Your task to perform on an android device: Go to accessibility settings Image 0: 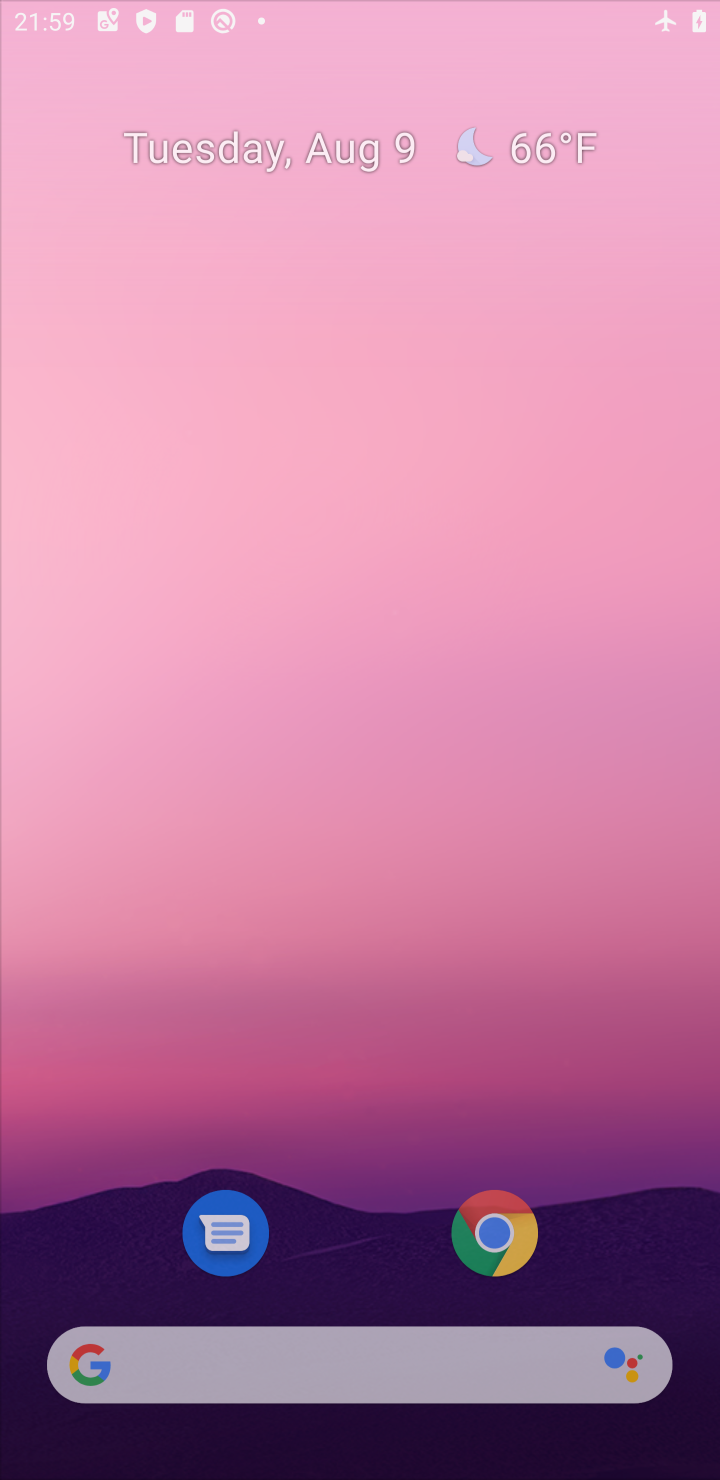
Step 0: press home button
Your task to perform on an android device: Go to accessibility settings Image 1: 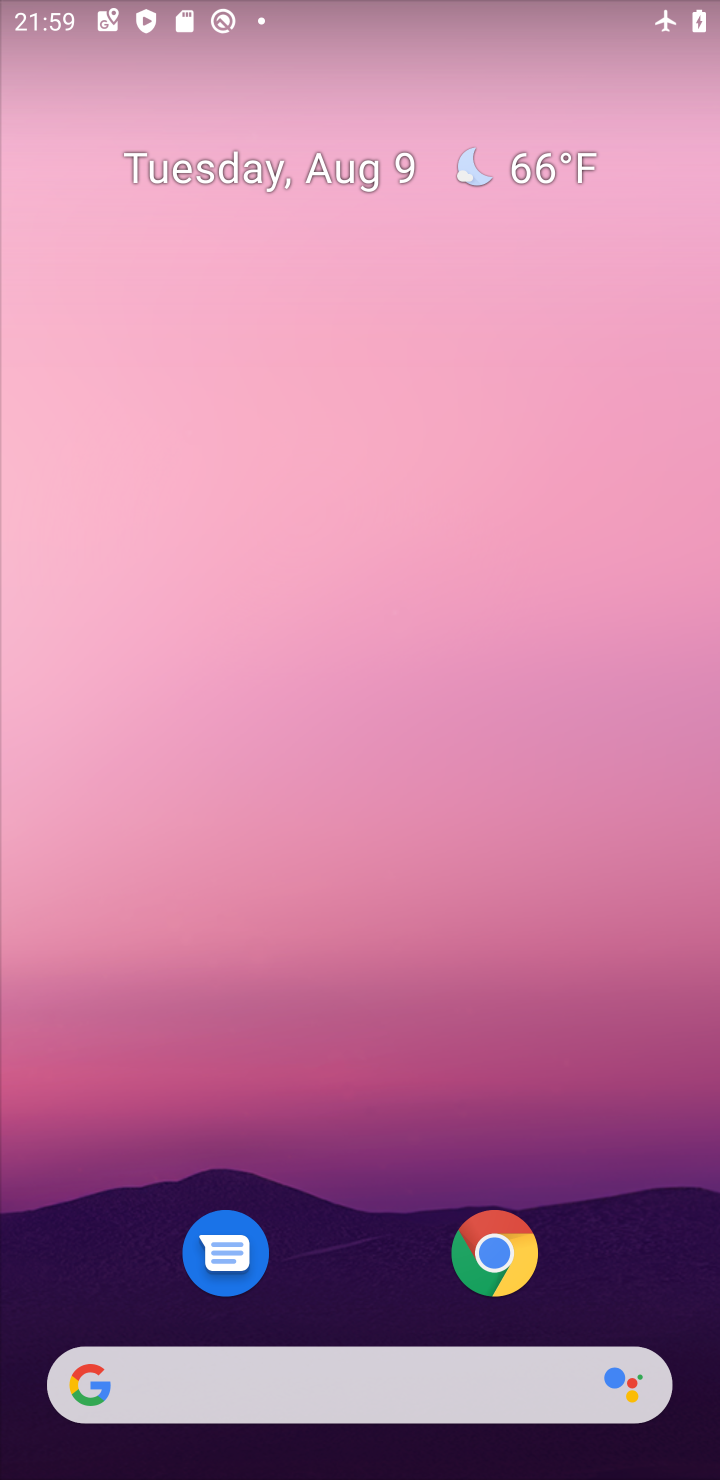
Step 1: drag from (320, 997) to (326, 59)
Your task to perform on an android device: Go to accessibility settings Image 2: 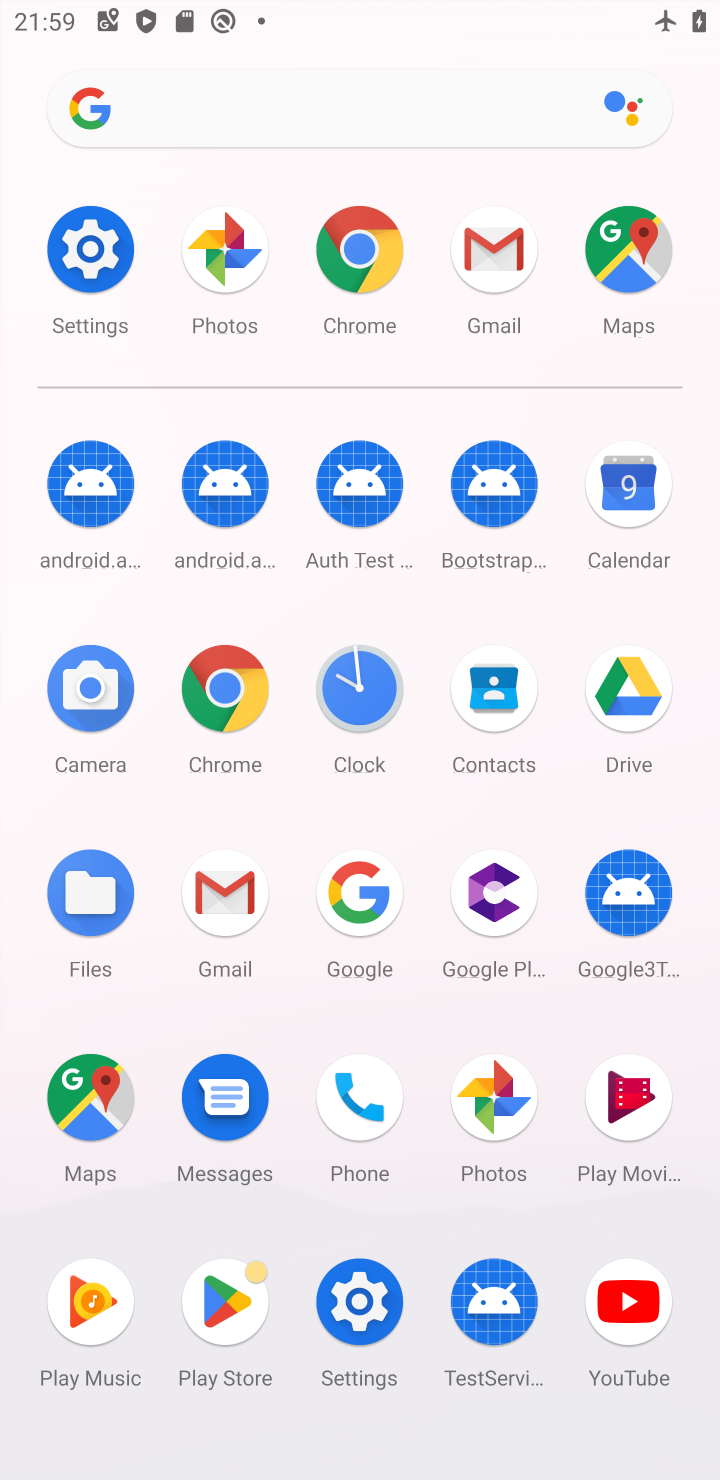
Step 2: click (78, 247)
Your task to perform on an android device: Go to accessibility settings Image 3: 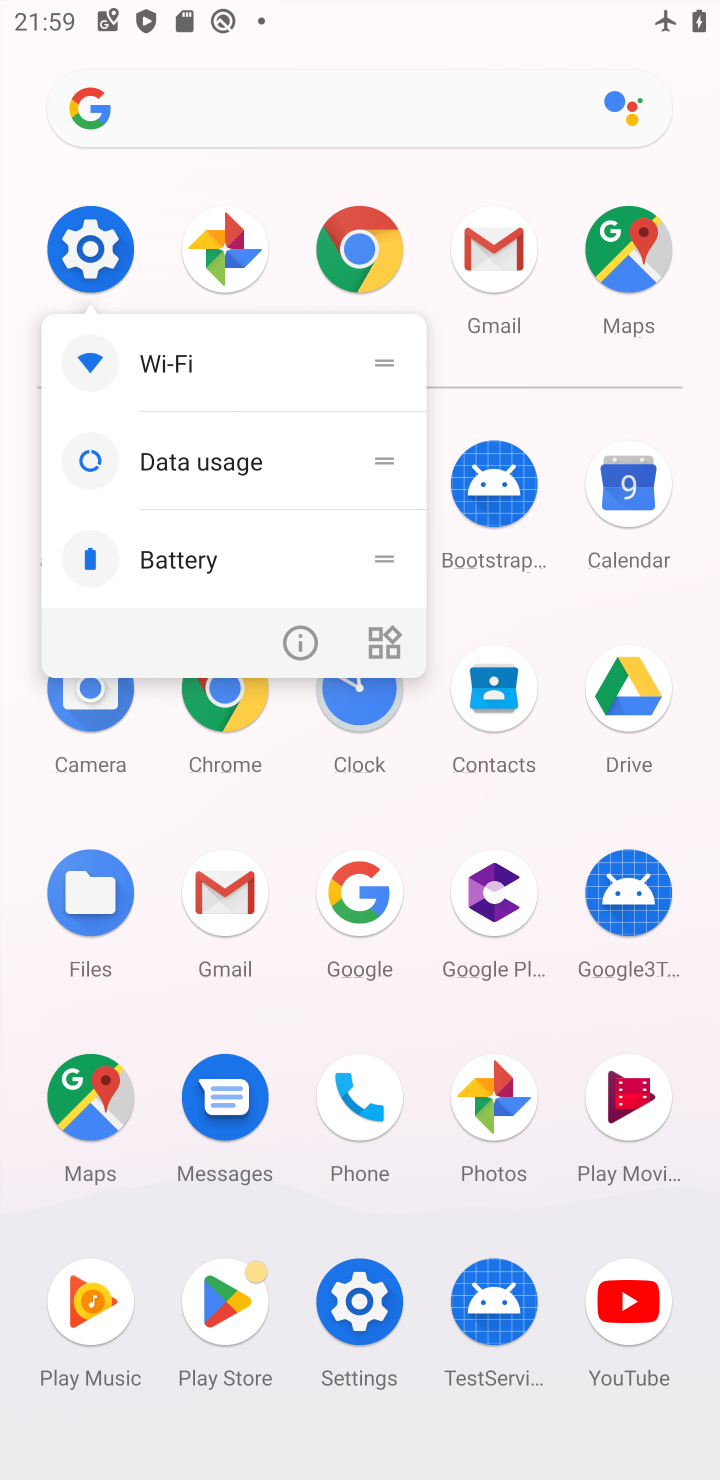
Step 3: click (360, 1309)
Your task to perform on an android device: Go to accessibility settings Image 4: 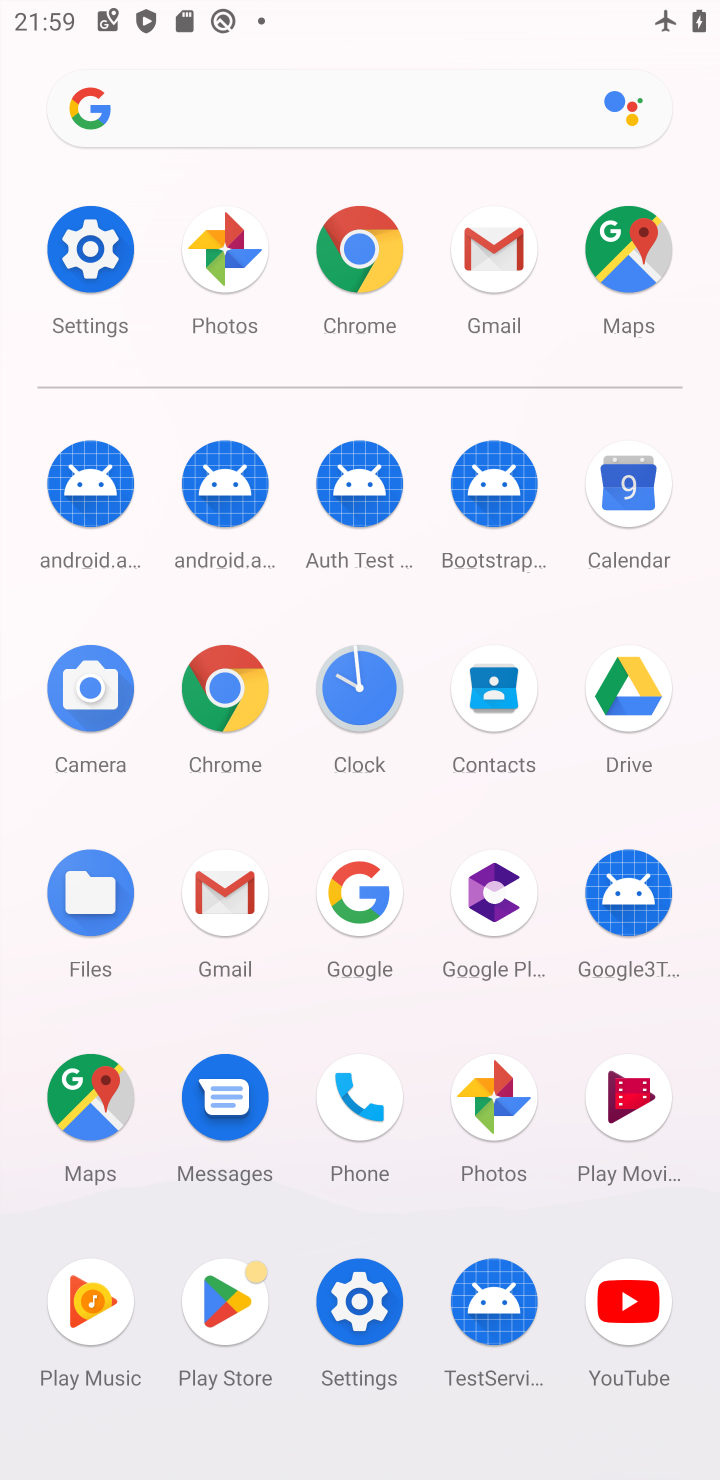
Step 4: click (360, 1304)
Your task to perform on an android device: Go to accessibility settings Image 5: 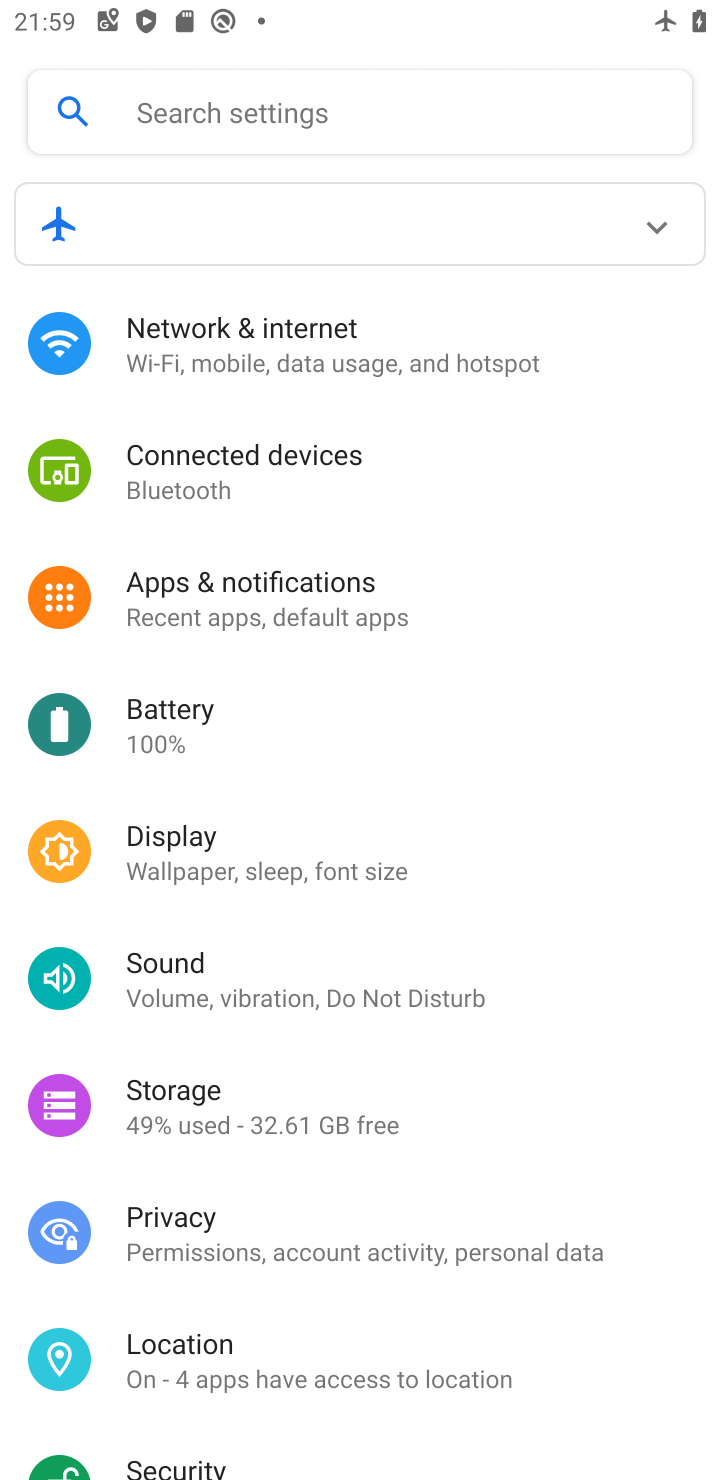
Step 5: drag from (402, 1322) to (480, 257)
Your task to perform on an android device: Go to accessibility settings Image 6: 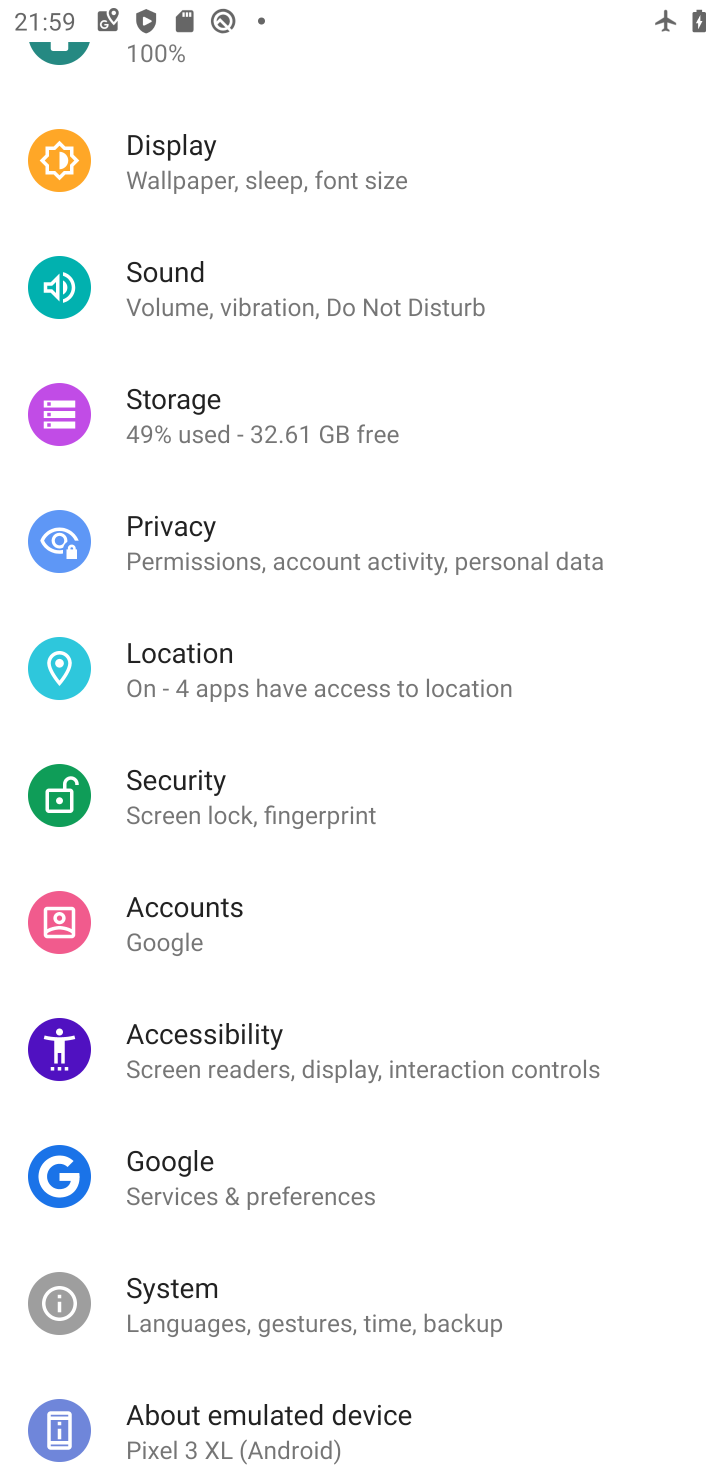
Step 6: click (203, 1057)
Your task to perform on an android device: Go to accessibility settings Image 7: 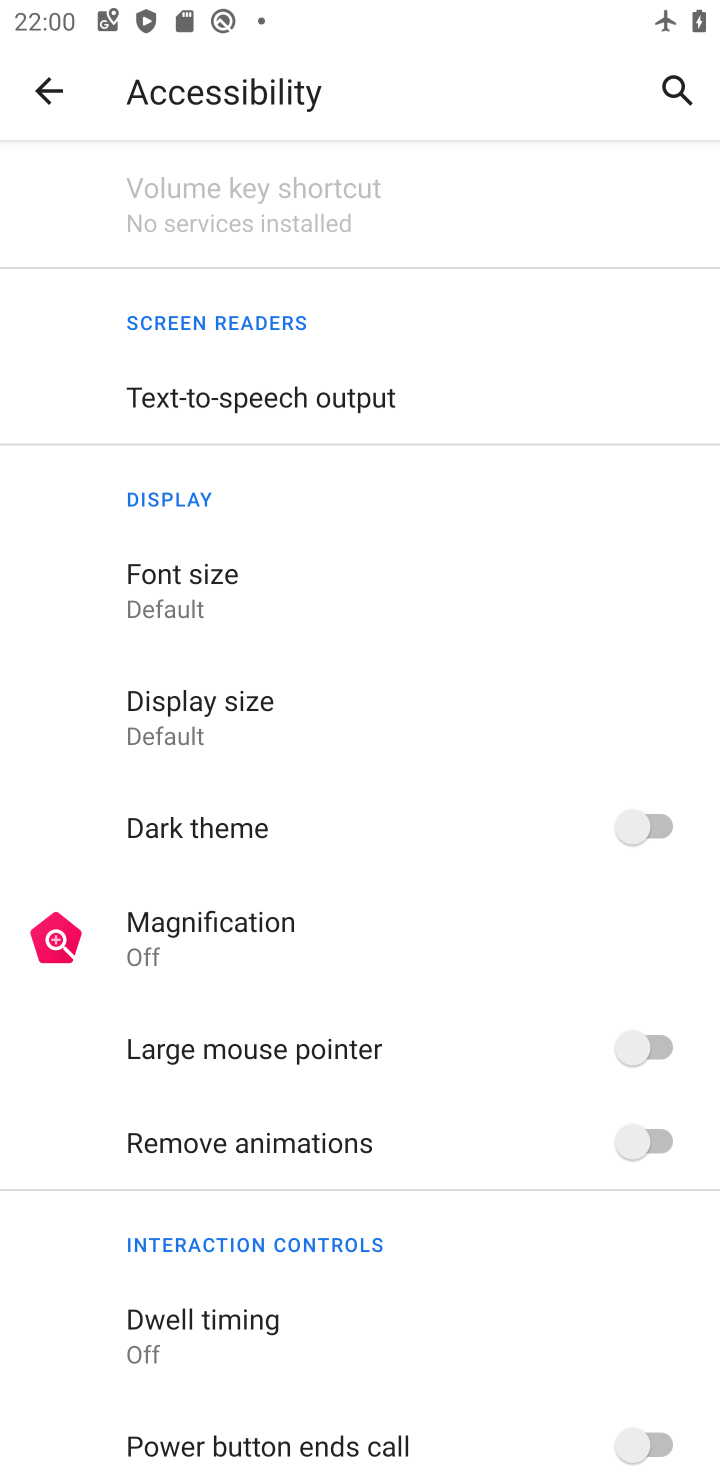
Step 7: task complete